Your task to perform on an android device: move an email to a new category in the gmail app Image 0: 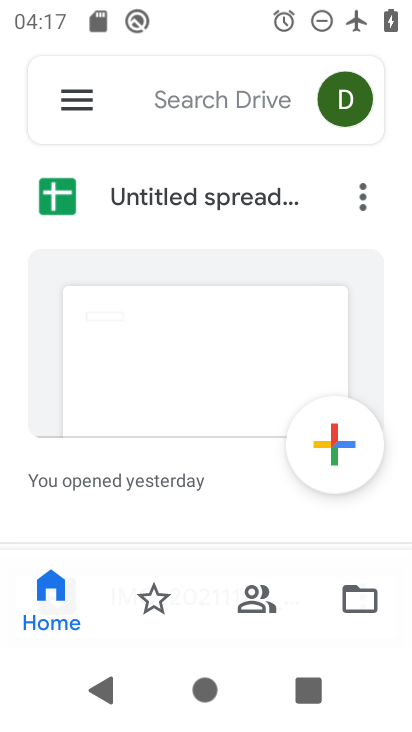
Step 0: press home button
Your task to perform on an android device: move an email to a new category in the gmail app Image 1: 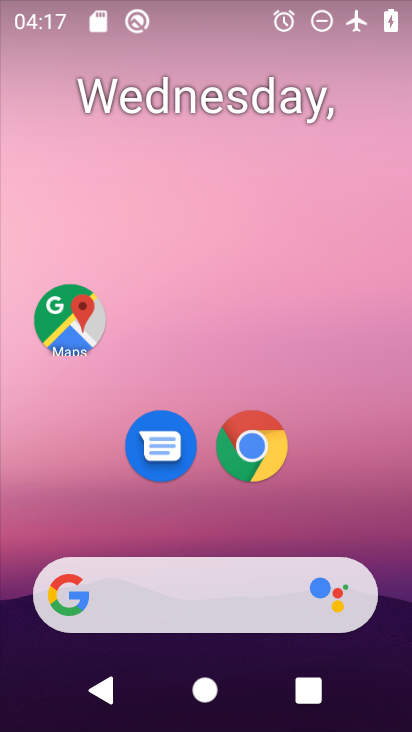
Step 1: drag from (196, 535) to (201, 227)
Your task to perform on an android device: move an email to a new category in the gmail app Image 2: 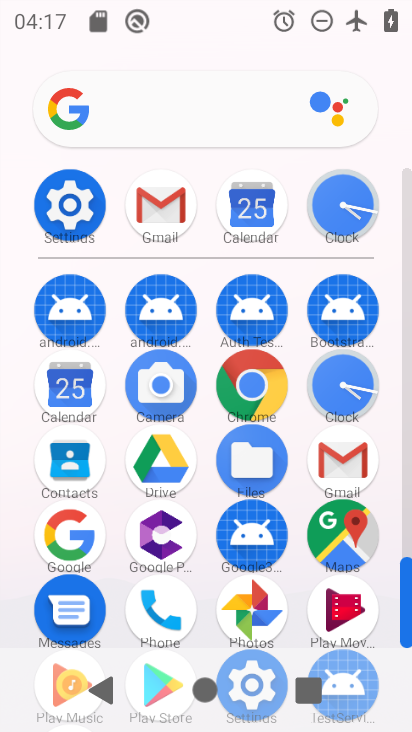
Step 2: click (173, 224)
Your task to perform on an android device: move an email to a new category in the gmail app Image 3: 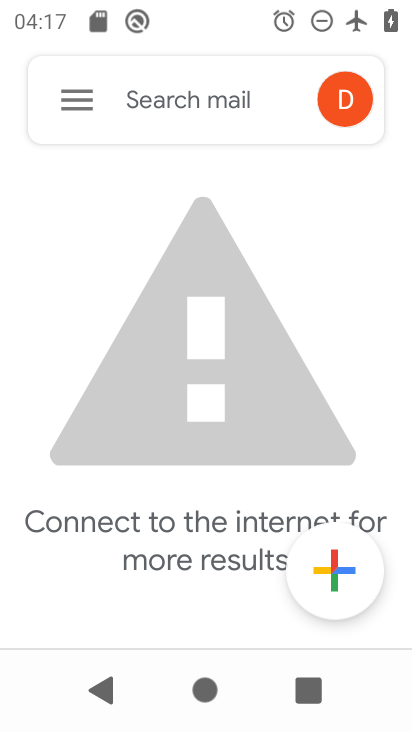
Step 3: click (88, 112)
Your task to perform on an android device: move an email to a new category in the gmail app Image 4: 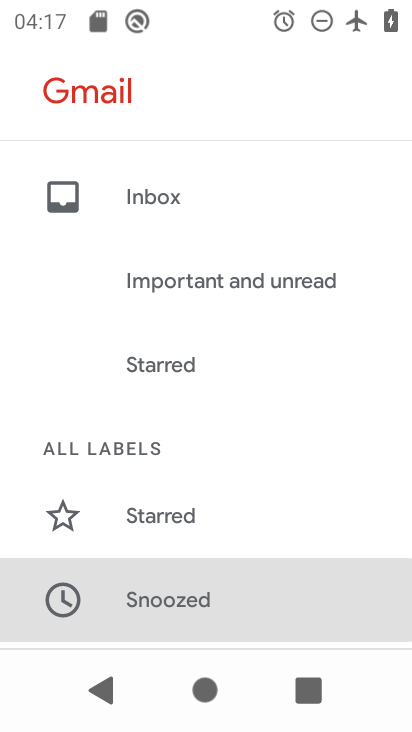
Step 4: drag from (187, 586) to (199, 286)
Your task to perform on an android device: move an email to a new category in the gmail app Image 5: 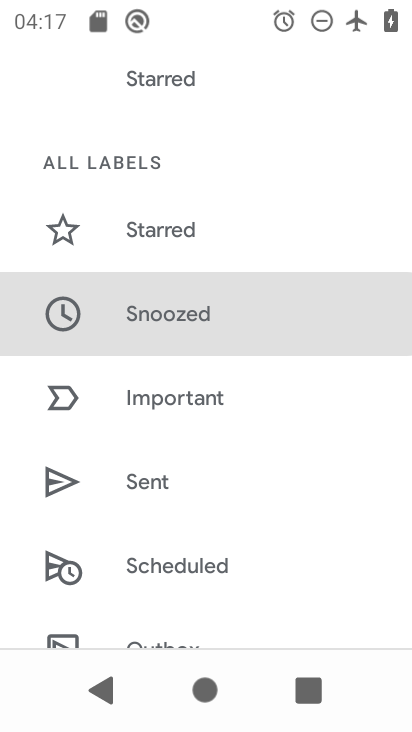
Step 5: drag from (212, 577) to (229, 258)
Your task to perform on an android device: move an email to a new category in the gmail app Image 6: 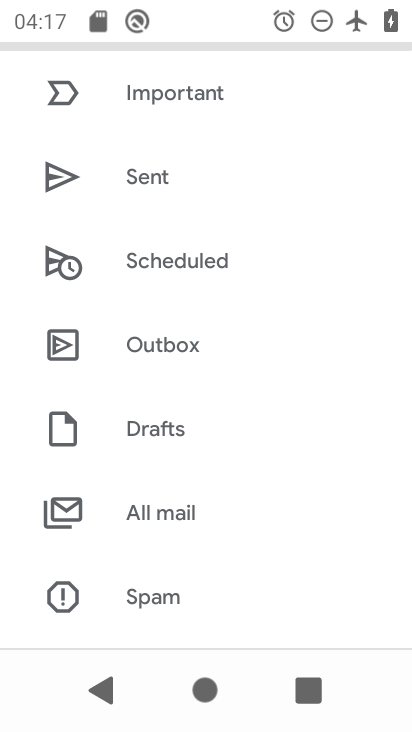
Step 6: click (224, 523)
Your task to perform on an android device: move an email to a new category in the gmail app Image 7: 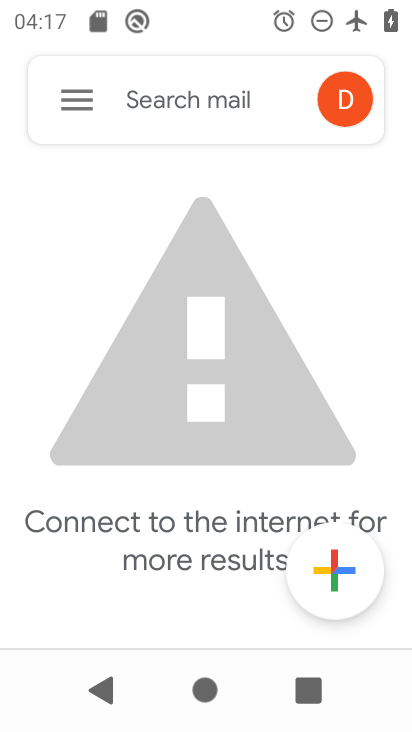
Step 7: task complete